Your task to perform on an android device: Open Maps and search for coffee Image 0: 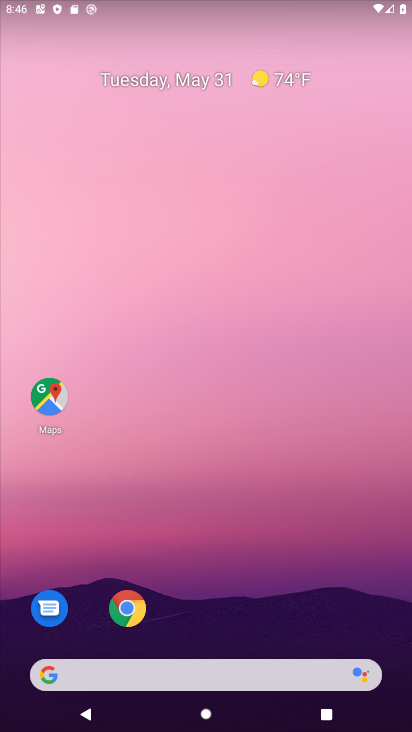
Step 0: drag from (227, 647) to (223, 310)
Your task to perform on an android device: Open Maps and search for coffee Image 1: 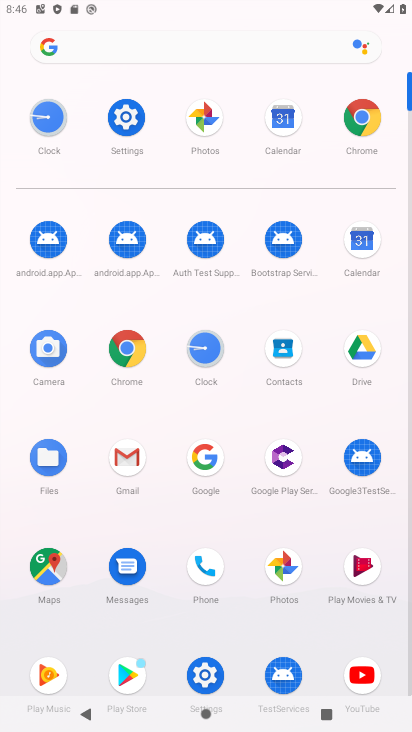
Step 1: click (32, 581)
Your task to perform on an android device: Open Maps and search for coffee Image 2: 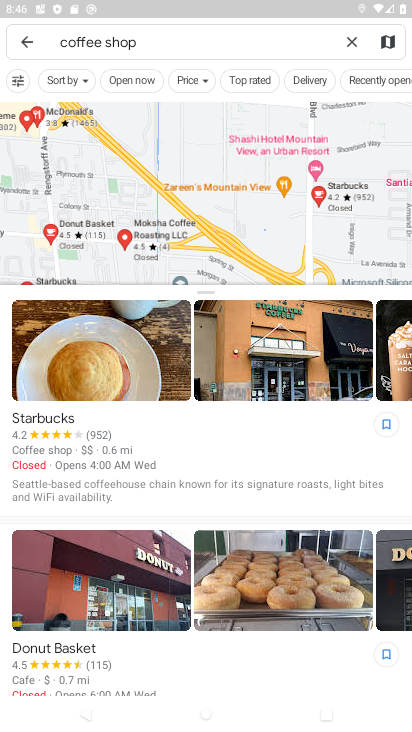
Step 2: task complete